Your task to perform on an android device: toggle javascript in the chrome app Image 0: 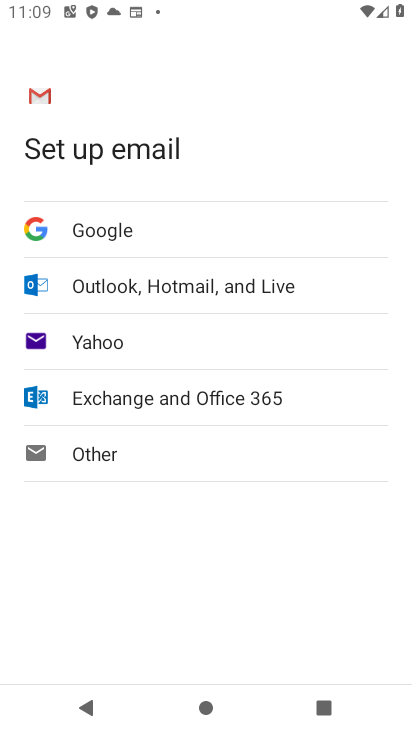
Step 0: press home button
Your task to perform on an android device: toggle javascript in the chrome app Image 1: 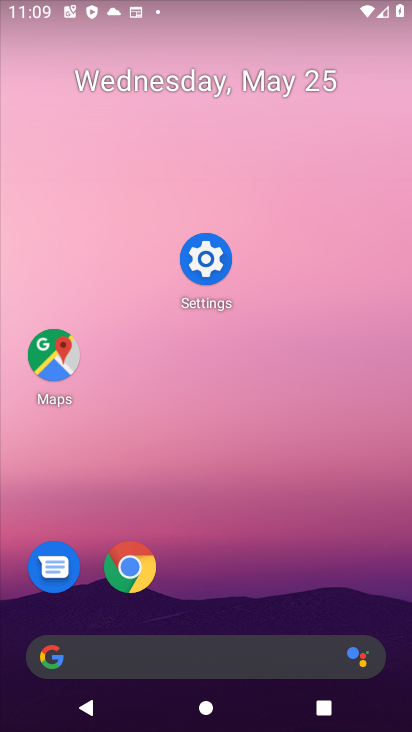
Step 1: click (206, 304)
Your task to perform on an android device: toggle javascript in the chrome app Image 2: 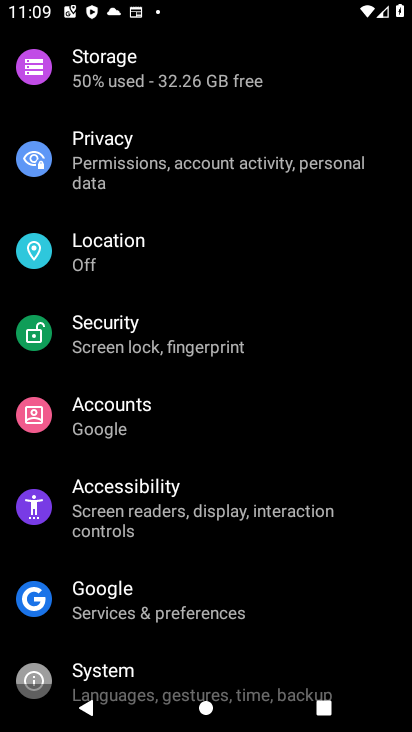
Step 2: press home button
Your task to perform on an android device: toggle javascript in the chrome app Image 3: 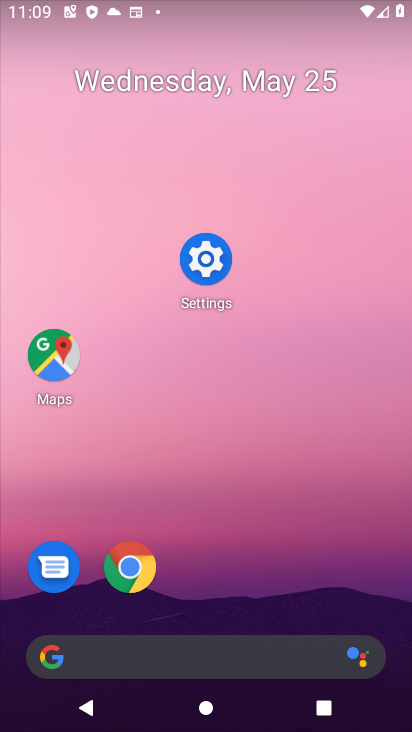
Step 3: drag from (291, 541) to (246, 49)
Your task to perform on an android device: toggle javascript in the chrome app Image 4: 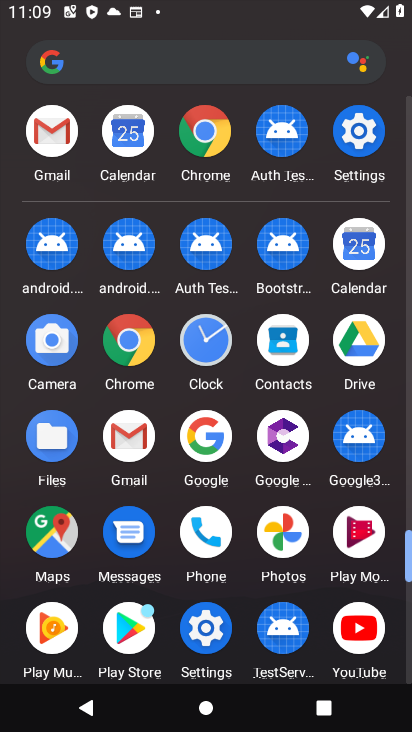
Step 4: click (183, 615)
Your task to perform on an android device: toggle javascript in the chrome app Image 5: 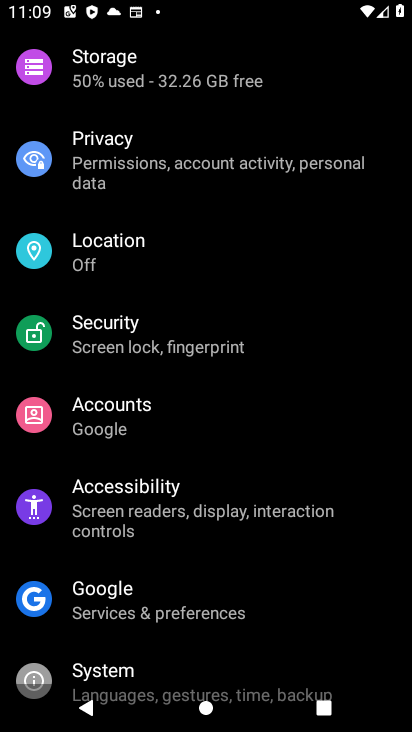
Step 5: press home button
Your task to perform on an android device: toggle javascript in the chrome app Image 6: 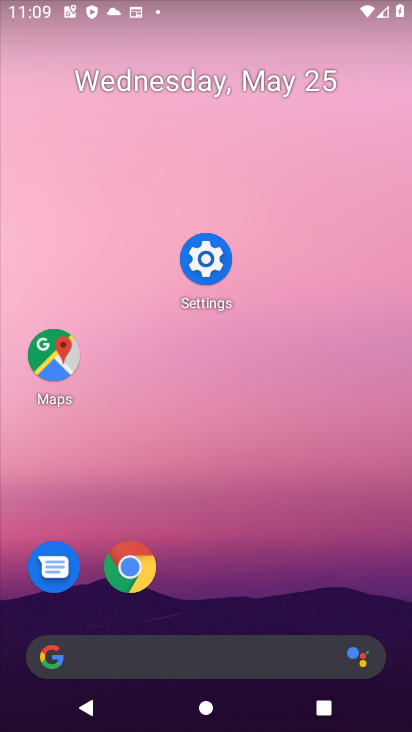
Step 6: drag from (222, 545) to (182, 103)
Your task to perform on an android device: toggle javascript in the chrome app Image 7: 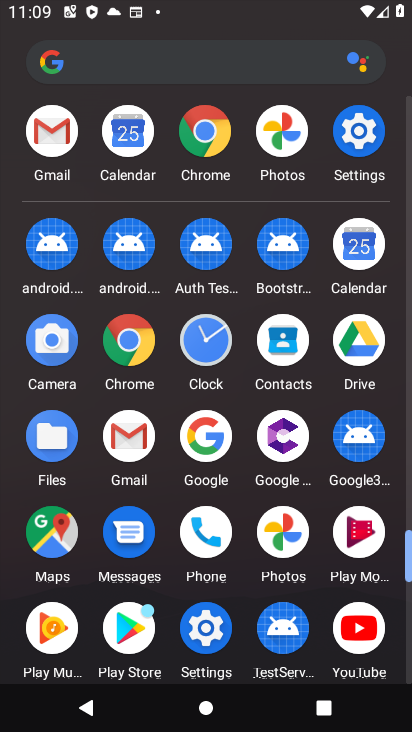
Step 7: click (222, 162)
Your task to perform on an android device: toggle javascript in the chrome app Image 8: 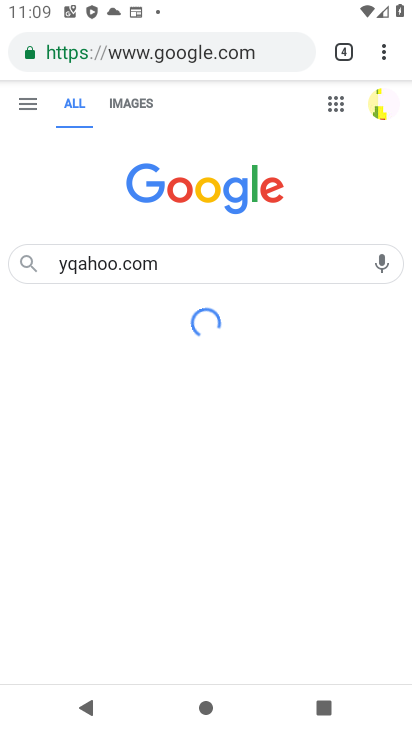
Step 8: click (384, 59)
Your task to perform on an android device: toggle javascript in the chrome app Image 9: 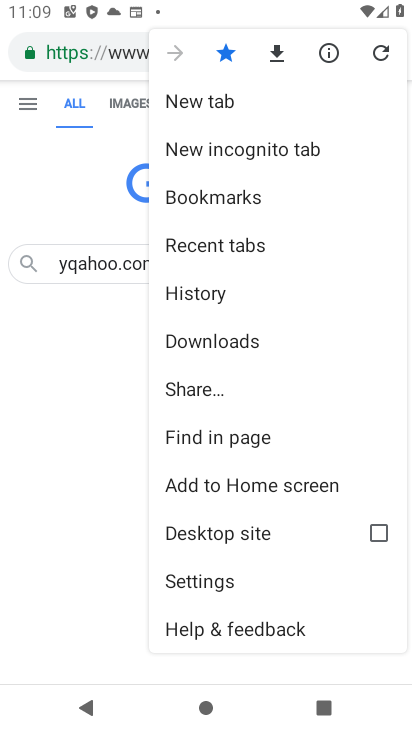
Step 9: click (220, 568)
Your task to perform on an android device: toggle javascript in the chrome app Image 10: 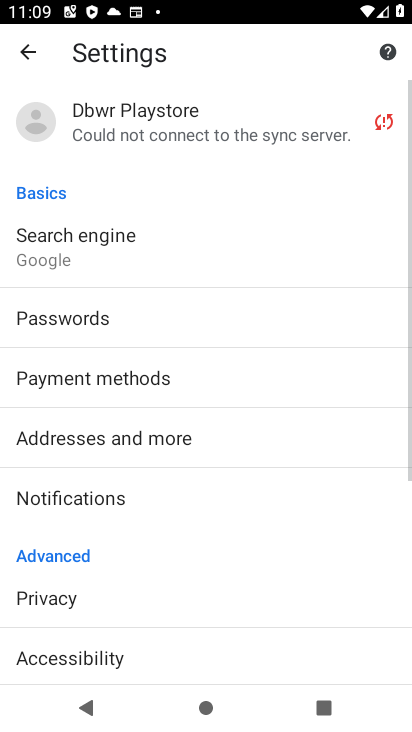
Step 10: drag from (231, 574) to (226, 219)
Your task to perform on an android device: toggle javascript in the chrome app Image 11: 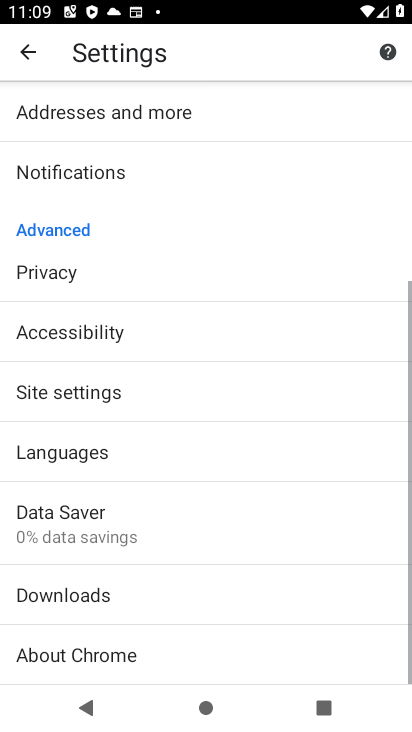
Step 11: click (226, 385)
Your task to perform on an android device: toggle javascript in the chrome app Image 12: 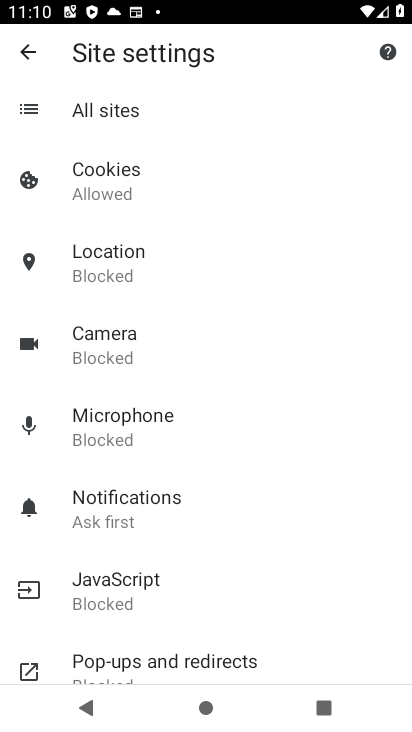
Step 12: click (164, 591)
Your task to perform on an android device: toggle javascript in the chrome app Image 13: 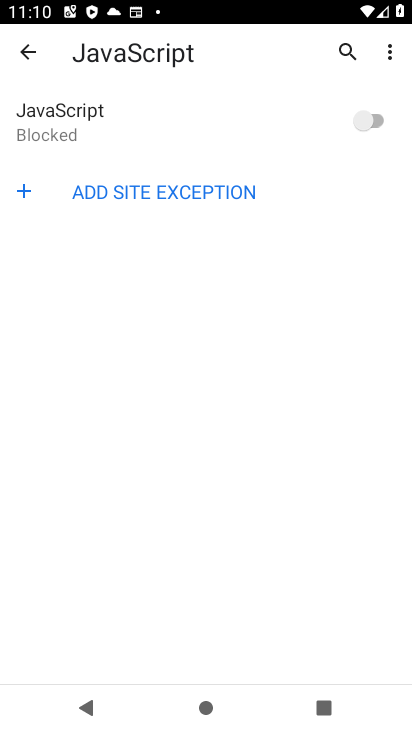
Step 13: click (374, 104)
Your task to perform on an android device: toggle javascript in the chrome app Image 14: 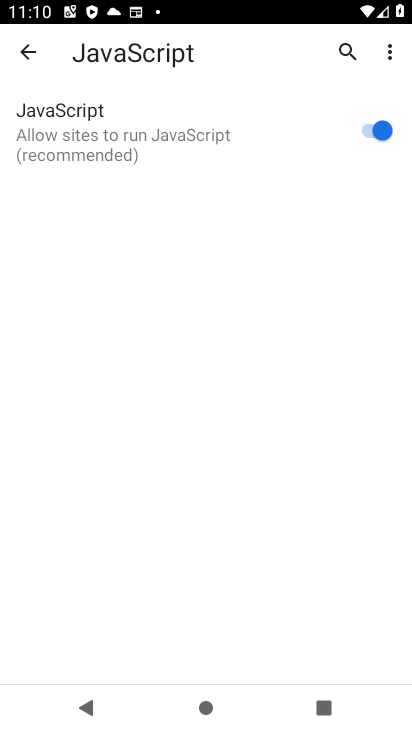
Step 14: task complete